Your task to perform on an android device: see creations saved in the google photos Image 0: 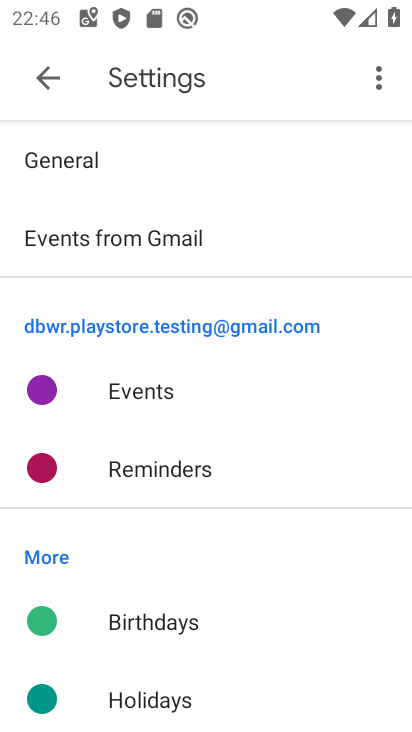
Step 0: press home button
Your task to perform on an android device: see creations saved in the google photos Image 1: 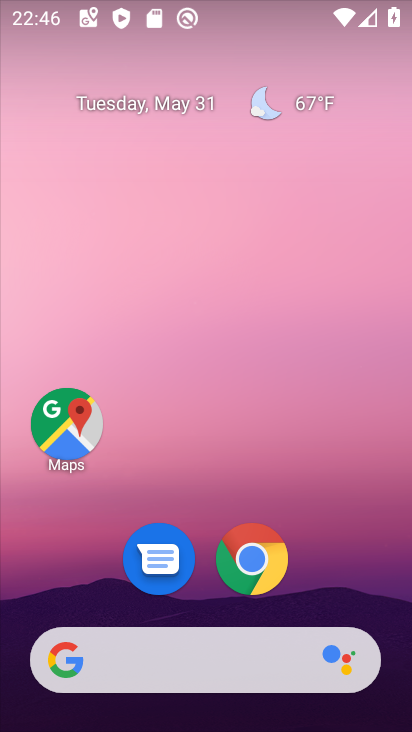
Step 1: drag from (317, 595) to (310, 99)
Your task to perform on an android device: see creations saved in the google photos Image 2: 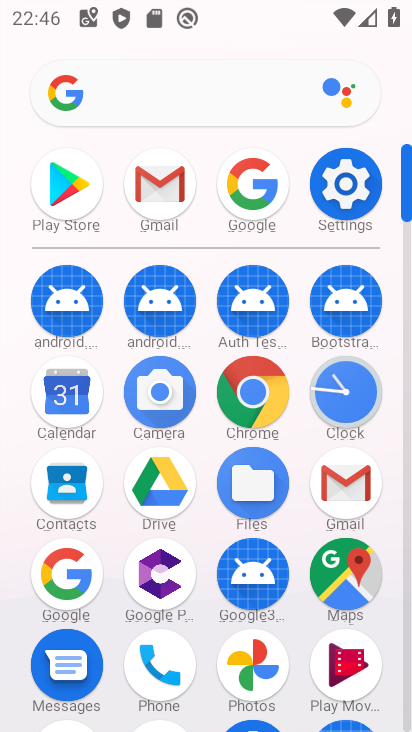
Step 2: click (256, 662)
Your task to perform on an android device: see creations saved in the google photos Image 3: 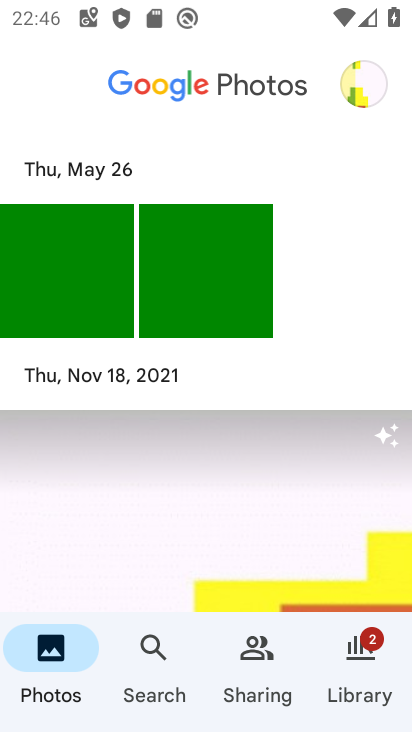
Step 3: click (153, 670)
Your task to perform on an android device: see creations saved in the google photos Image 4: 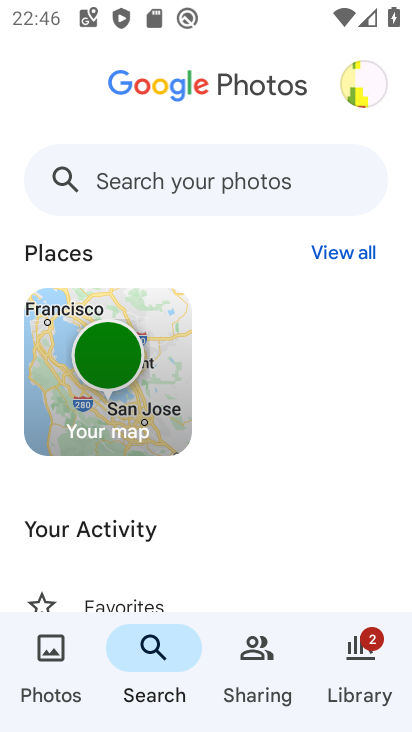
Step 4: click (157, 173)
Your task to perform on an android device: see creations saved in the google photos Image 5: 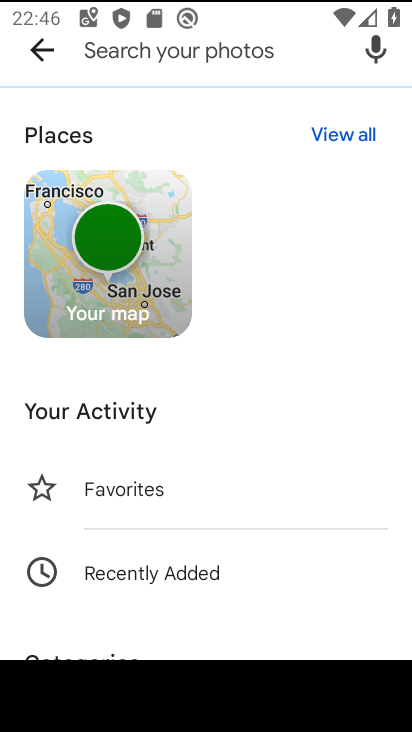
Step 5: drag from (235, 557) to (222, 203)
Your task to perform on an android device: see creations saved in the google photos Image 6: 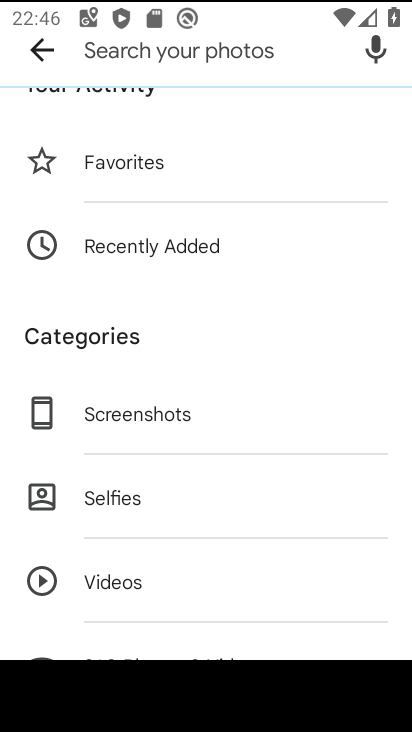
Step 6: drag from (194, 553) to (178, 232)
Your task to perform on an android device: see creations saved in the google photos Image 7: 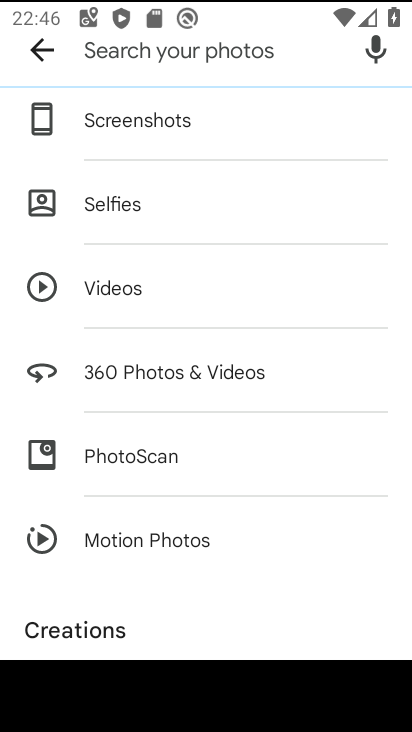
Step 7: drag from (131, 599) to (130, 372)
Your task to perform on an android device: see creations saved in the google photos Image 8: 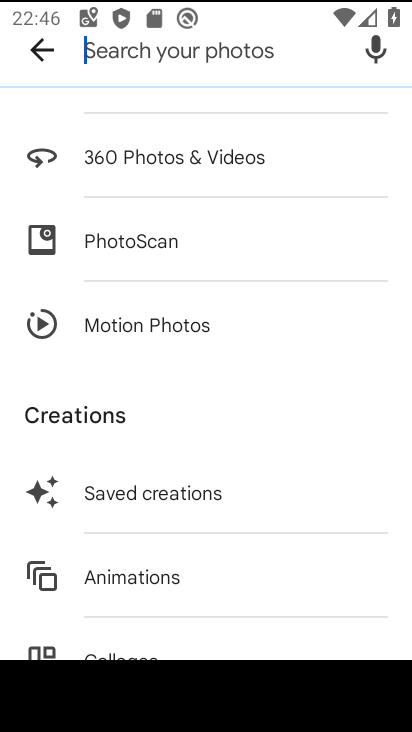
Step 8: click (144, 488)
Your task to perform on an android device: see creations saved in the google photos Image 9: 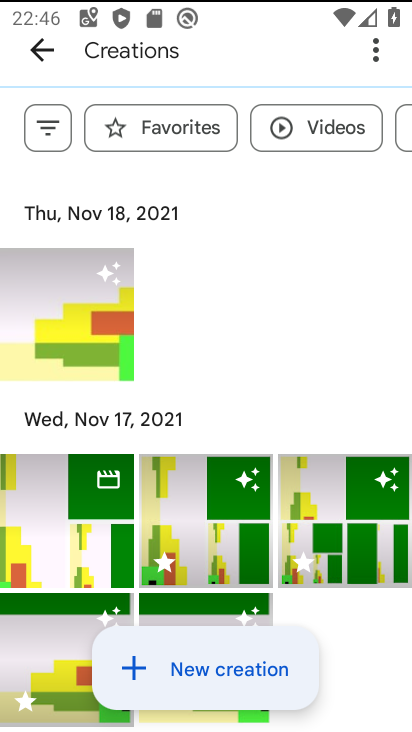
Step 9: task complete